Your task to perform on an android device: Go to Maps Image 0: 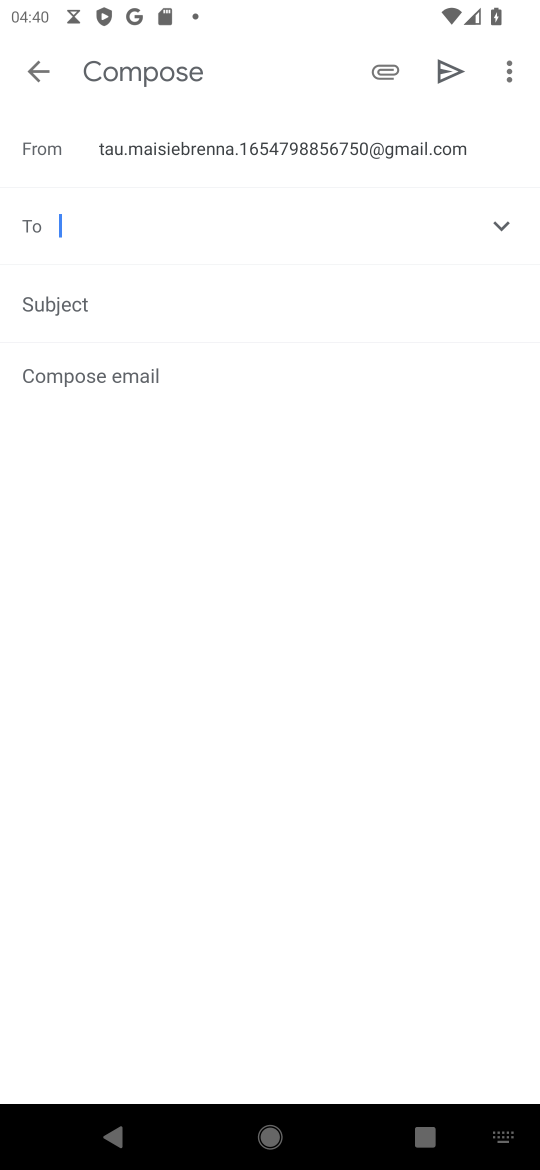
Step 0: press home button
Your task to perform on an android device: Go to Maps Image 1: 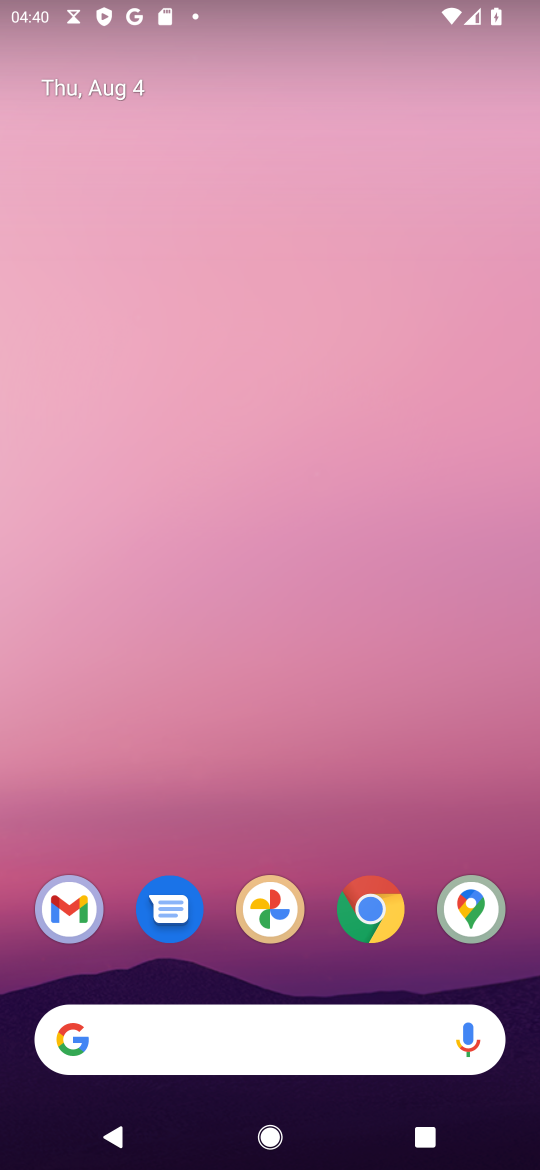
Step 1: click (471, 904)
Your task to perform on an android device: Go to Maps Image 2: 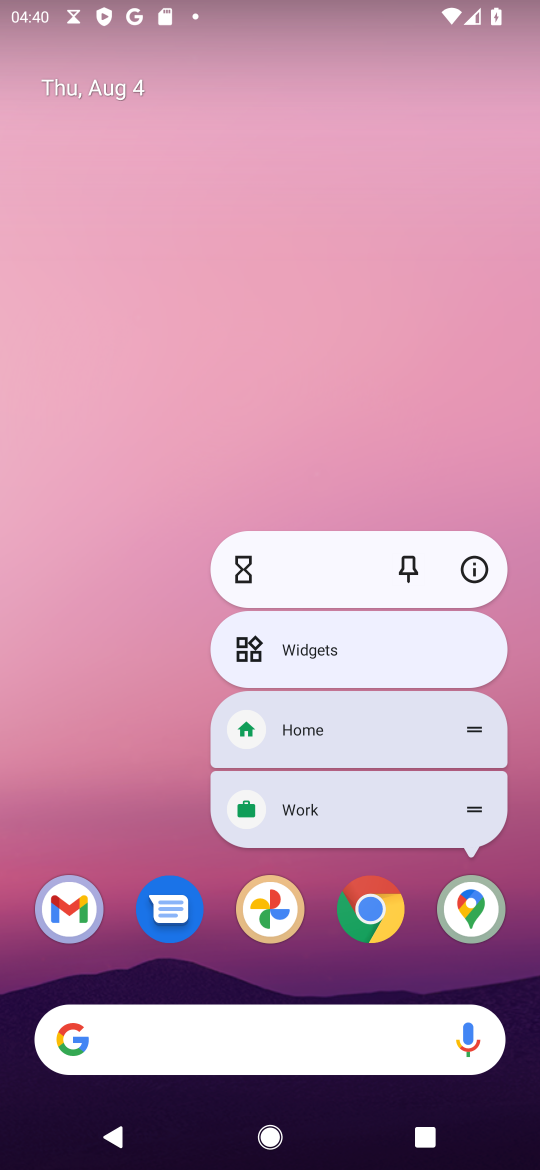
Step 2: click (471, 903)
Your task to perform on an android device: Go to Maps Image 3: 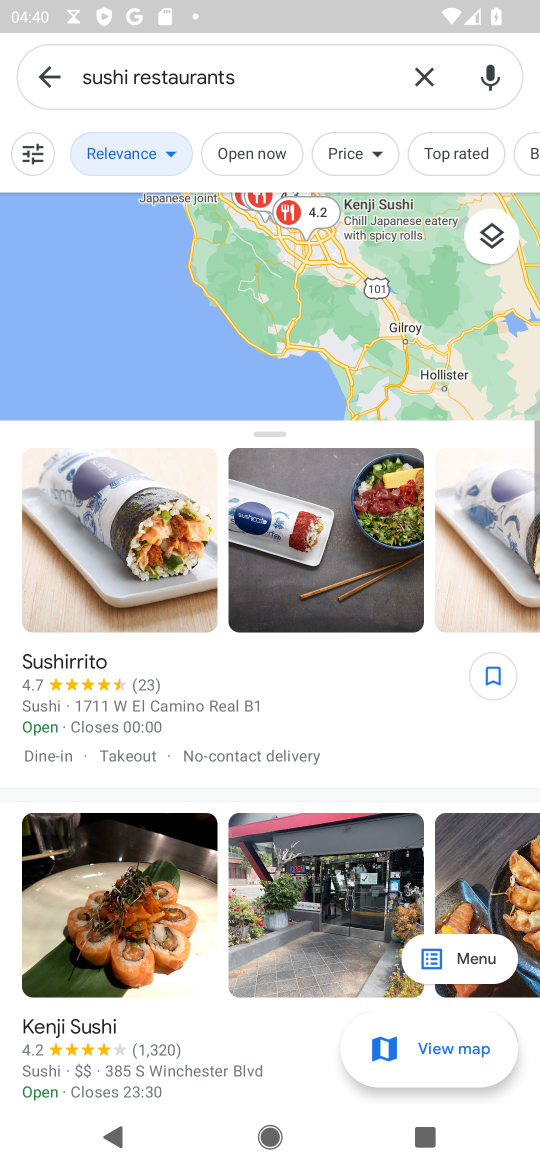
Step 3: click (411, 64)
Your task to perform on an android device: Go to Maps Image 4: 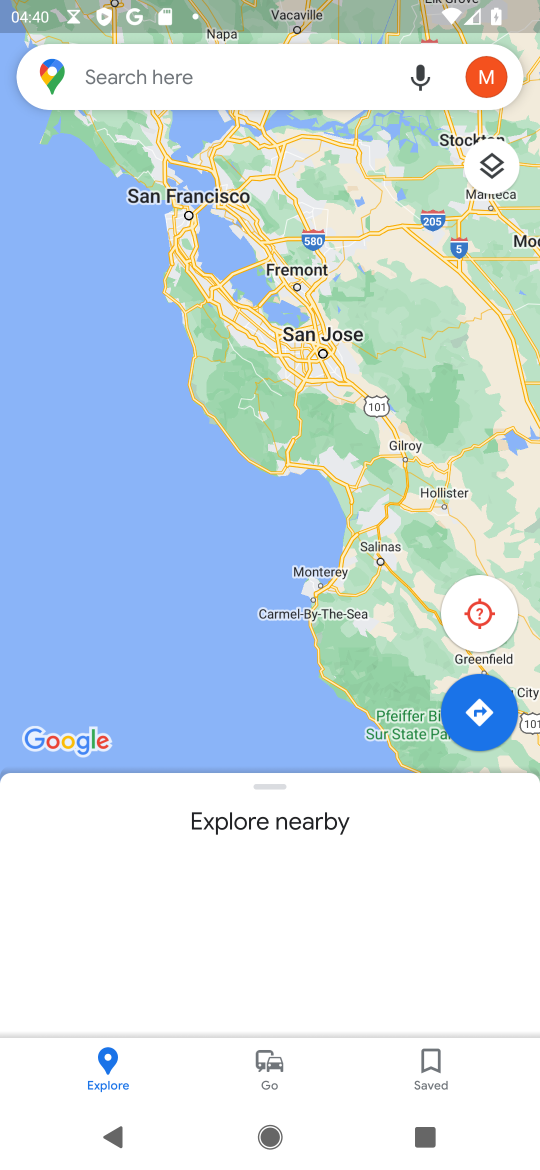
Step 4: task complete